Your task to perform on an android device: turn on improve location accuracy Image 0: 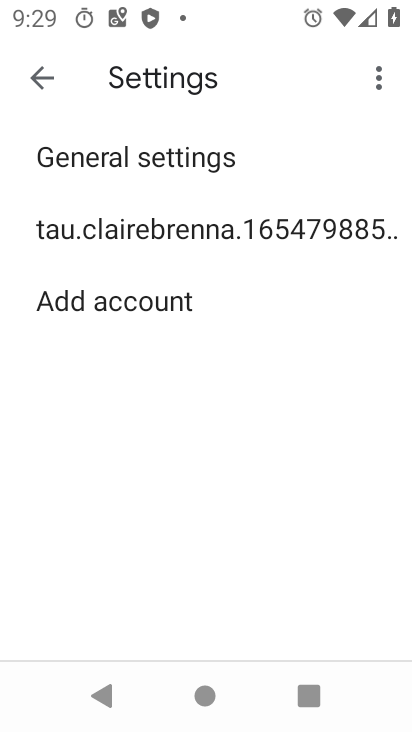
Step 0: press home button
Your task to perform on an android device: turn on improve location accuracy Image 1: 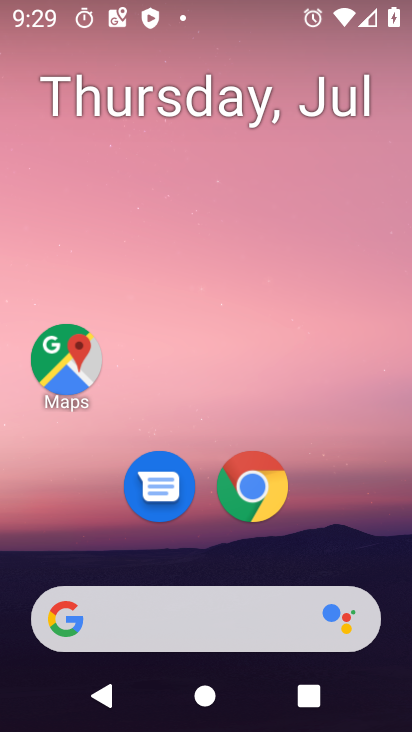
Step 1: drag from (304, 634) to (249, 277)
Your task to perform on an android device: turn on improve location accuracy Image 2: 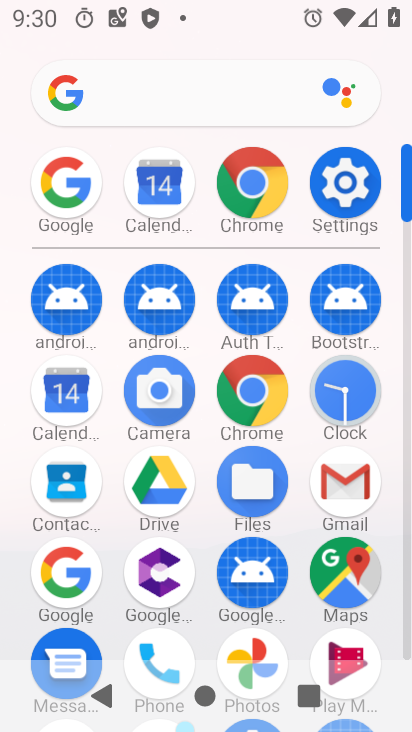
Step 2: click (335, 216)
Your task to perform on an android device: turn on improve location accuracy Image 3: 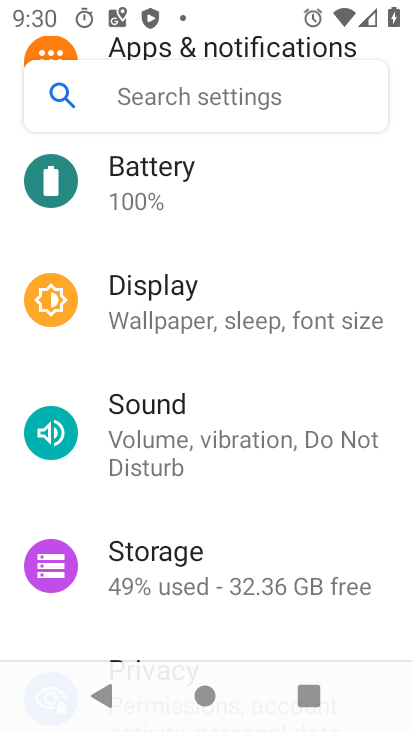
Step 3: drag from (244, 256) to (223, 579)
Your task to perform on an android device: turn on improve location accuracy Image 4: 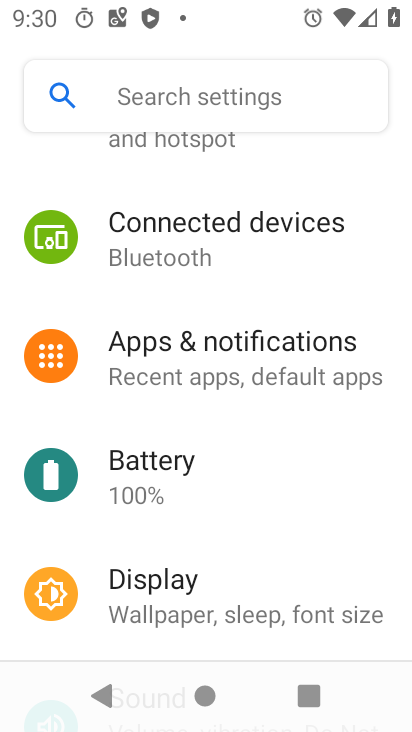
Step 4: drag from (167, 416) to (147, 288)
Your task to perform on an android device: turn on improve location accuracy Image 5: 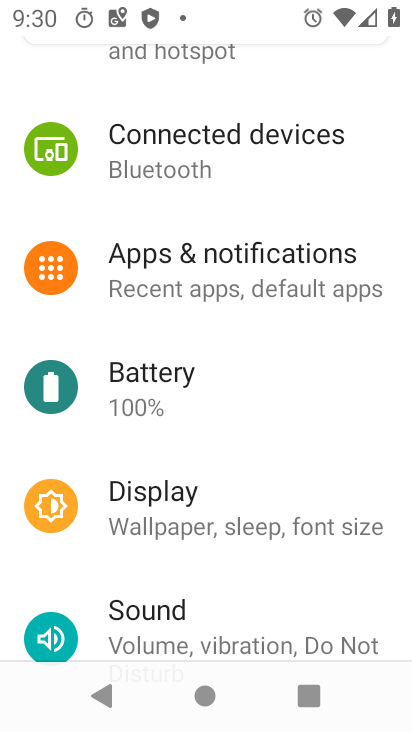
Step 5: drag from (119, 524) to (108, 295)
Your task to perform on an android device: turn on improve location accuracy Image 6: 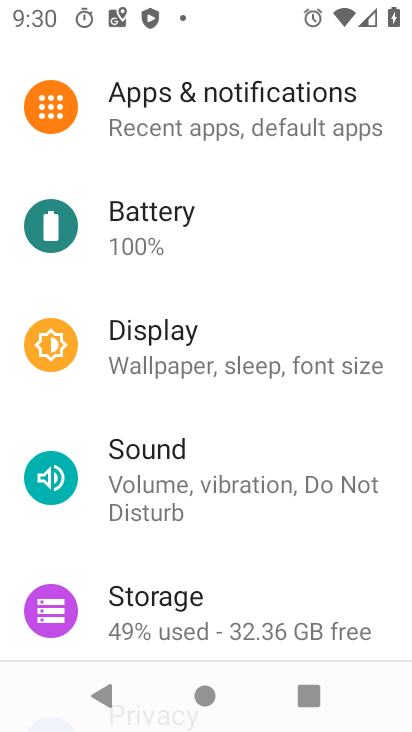
Step 6: drag from (168, 570) to (152, 352)
Your task to perform on an android device: turn on improve location accuracy Image 7: 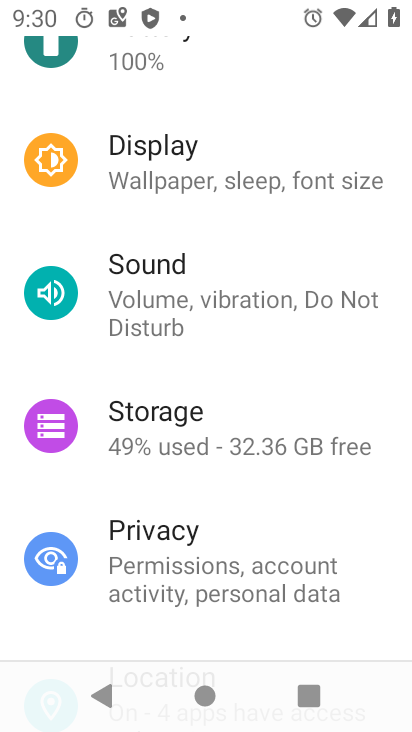
Step 7: drag from (193, 567) to (181, 396)
Your task to perform on an android device: turn on improve location accuracy Image 8: 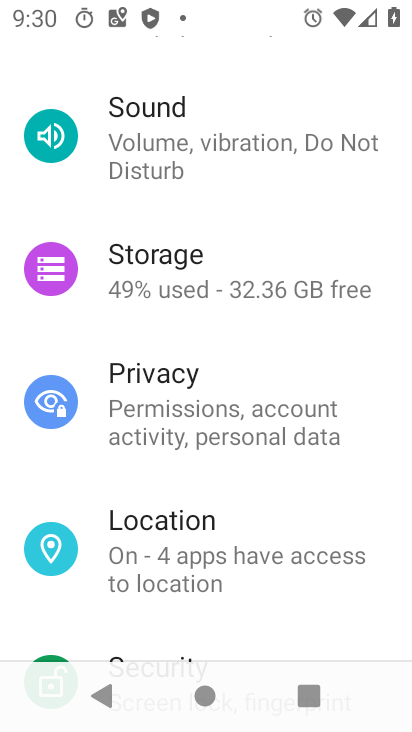
Step 8: click (202, 553)
Your task to perform on an android device: turn on improve location accuracy Image 9: 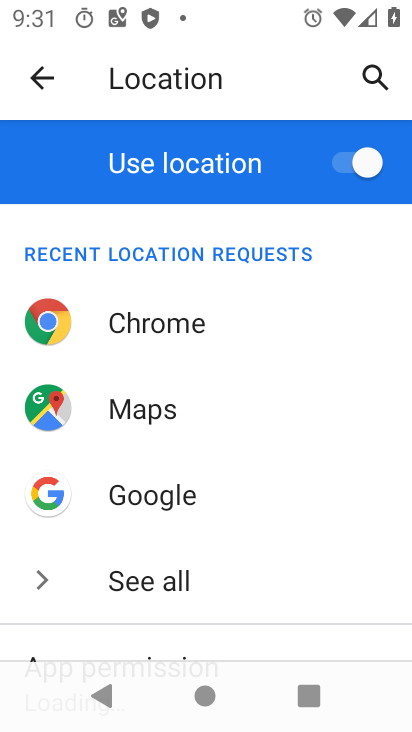
Step 9: drag from (194, 574) to (126, 337)
Your task to perform on an android device: turn on improve location accuracy Image 10: 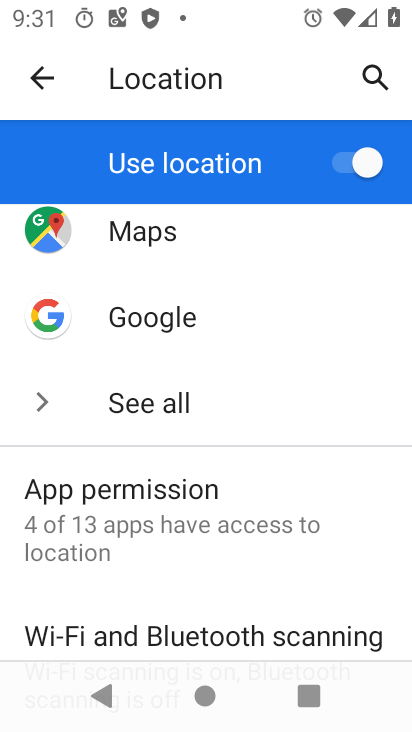
Step 10: drag from (140, 557) to (136, 133)
Your task to perform on an android device: turn on improve location accuracy Image 11: 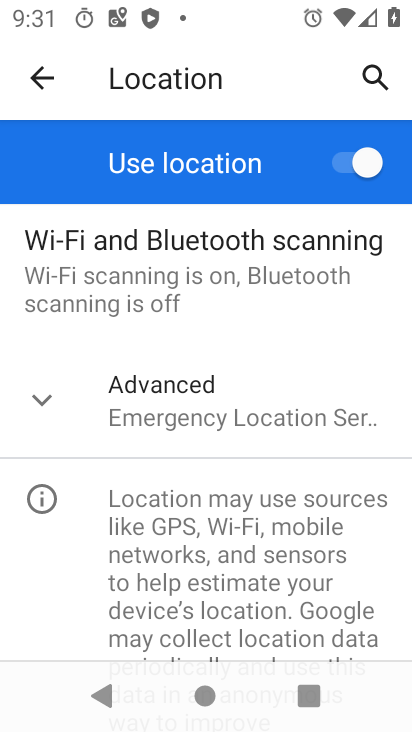
Step 11: click (135, 381)
Your task to perform on an android device: turn on improve location accuracy Image 12: 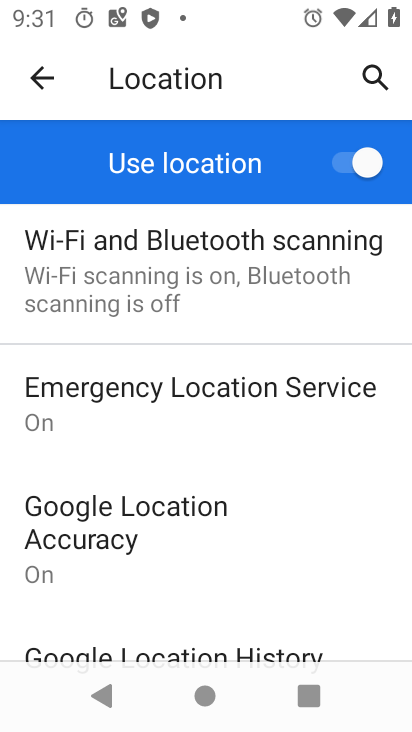
Step 12: click (217, 543)
Your task to perform on an android device: turn on improve location accuracy Image 13: 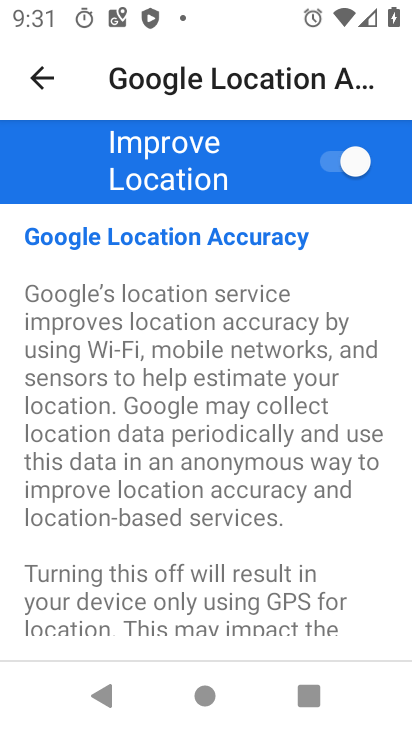
Step 13: task complete